Your task to perform on an android device: What's on my calendar tomorrow? Image 0: 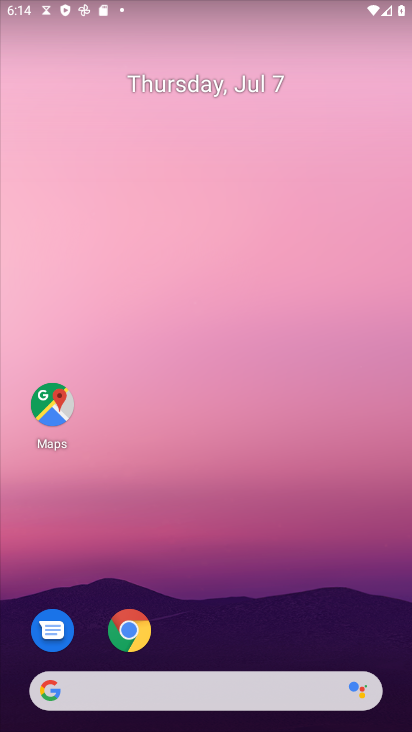
Step 0: click (179, 100)
Your task to perform on an android device: What's on my calendar tomorrow? Image 1: 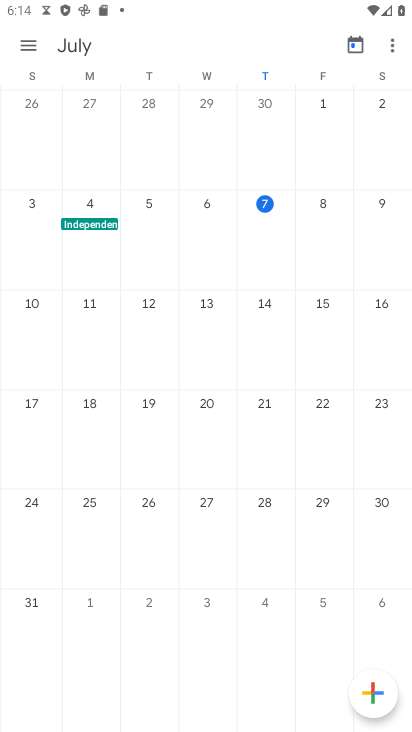
Step 1: press home button
Your task to perform on an android device: What's on my calendar tomorrow? Image 2: 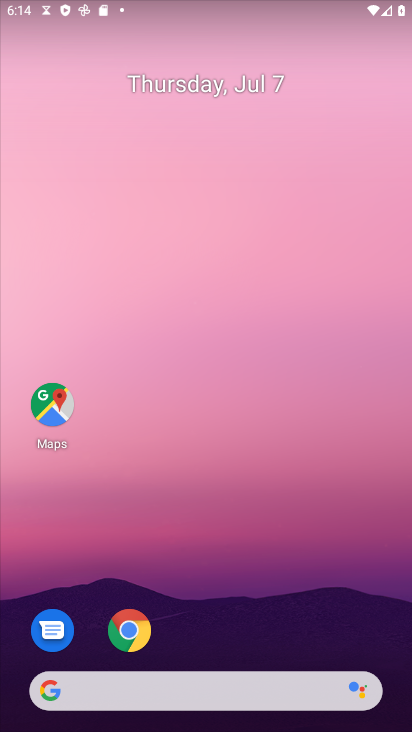
Step 2: drag from (224, 212) to (242, 174)
Your task to perform on an android device: What's on my calendar tomorrow? Image 3: 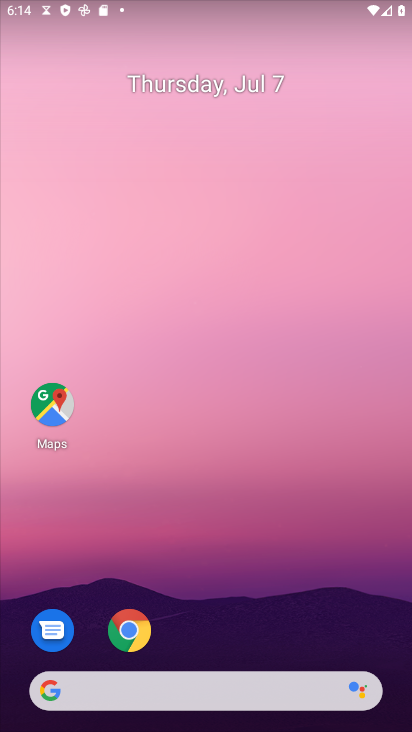
Step 3: drag from (189, 311) to (235, 83)
Your task to perform on an android device: What's on my calendar tomorrow? Image 4: 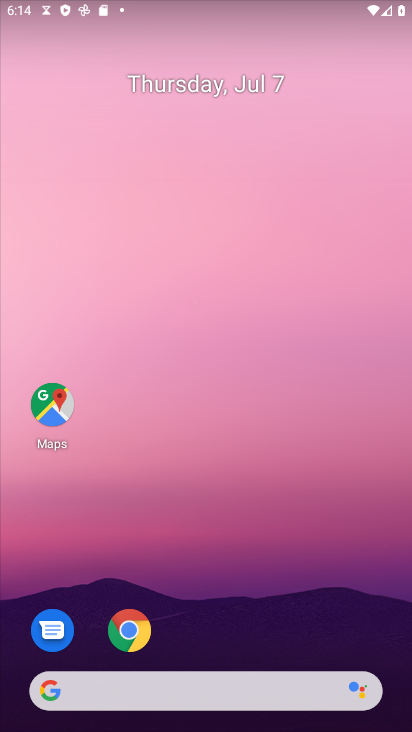
Step 4: drag from (203, 284) to (187, 23)
Your task to perform on an android device: What's on my calendar tomorrow? Image 5: 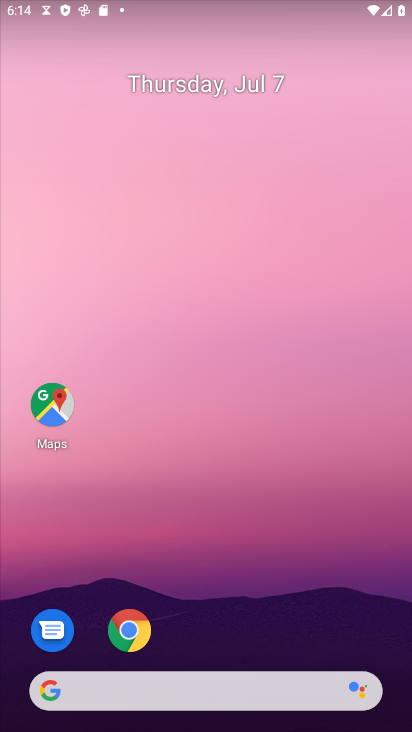
Step 5: drag from (208, 598) to (319, 24)
Your task to perform on an android device: What's on my calendar tomorrow? Image 6: 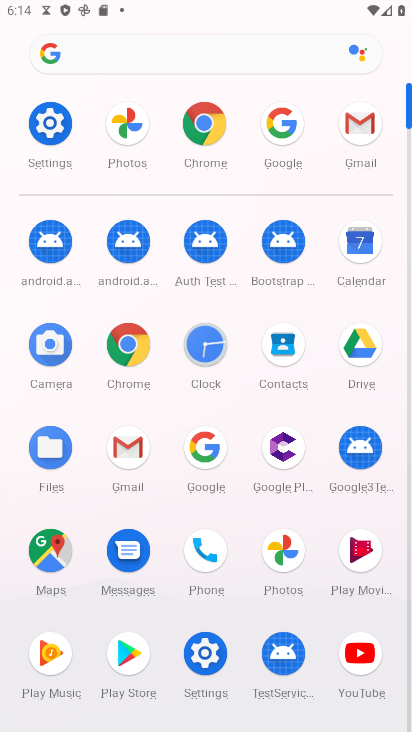
Step 6: click (349, 267)
Your task to perform on an android device: What's on my calendar tomorrow? Image 7: 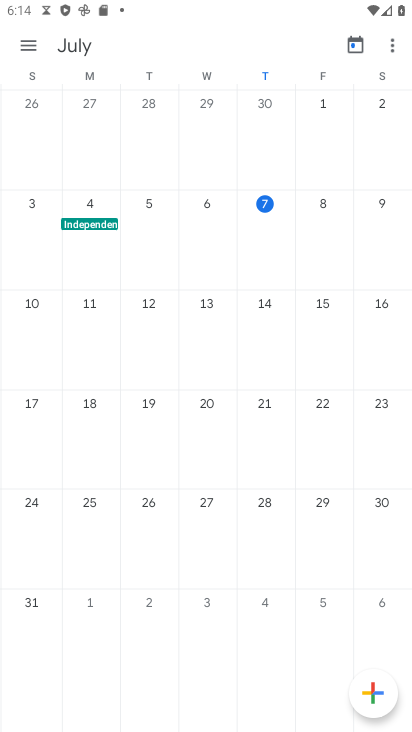
Step 7: task complete